Your task to perform on an android device: What's on my calendar today? Image 0: 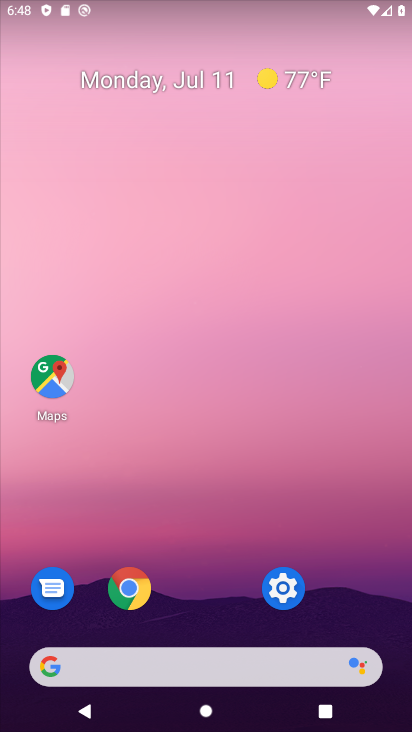
Step 0: drag from (227, 695) to (216, 311)
Your task to perform on an android device: What's on my calendar today? Image 1: 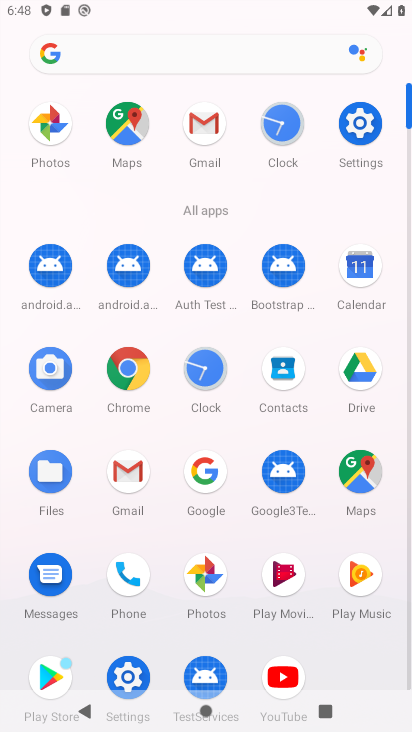
Step 1: click (364, 267)
Your task to perform on an android device: What's on my calendar today? Image 2: 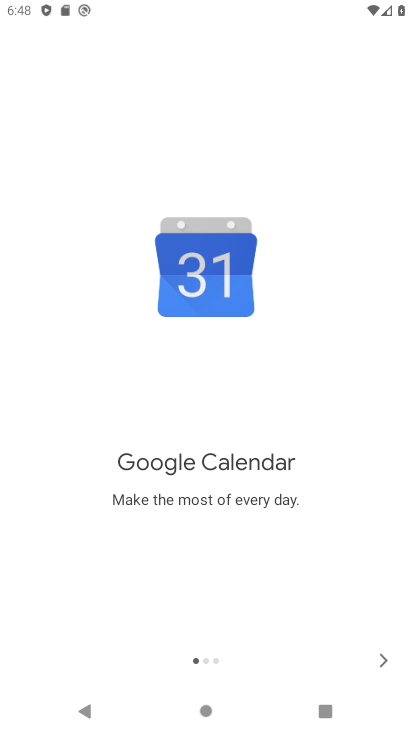
Step 2: click (399, 653)
Your task to perform on an android device: What's on my calendar today? Image 3: 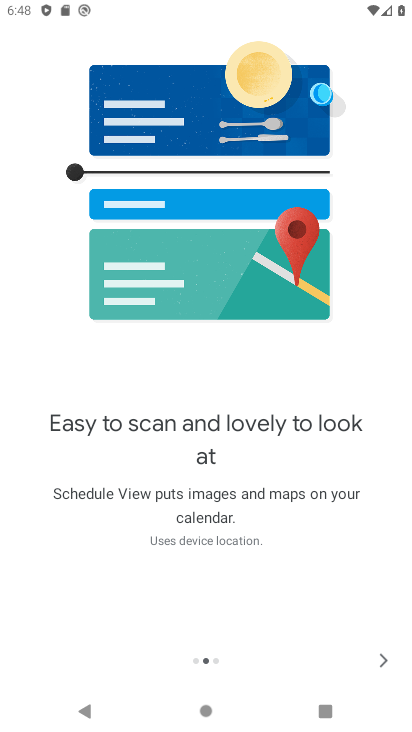
Step 3: click (388, 657)
Your task to perform on an android device: What's on my calendar today? Image 4: 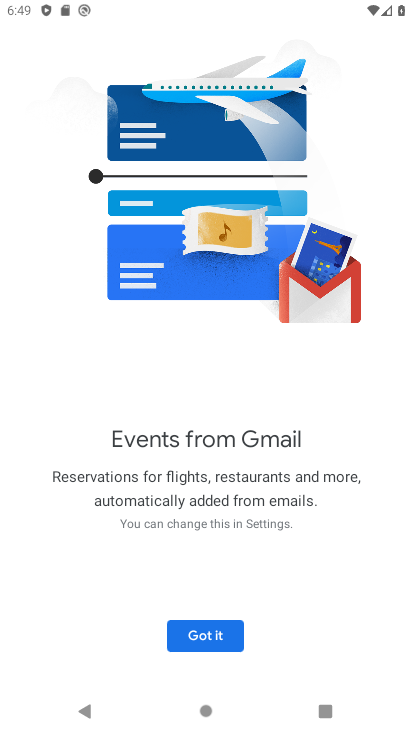
Step 4: click (209, 628)
Your task to perform on an android device: What's on my calendar today? Image 5: 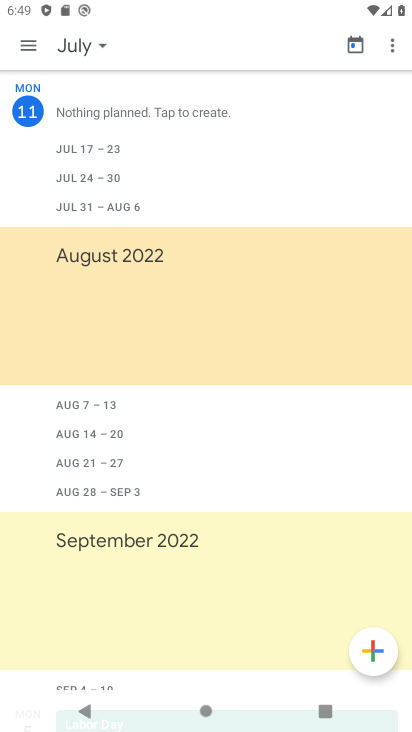
Step 5: click (33, 59)
Your task to perform on an android device: What's on my calendar today? Image 6: 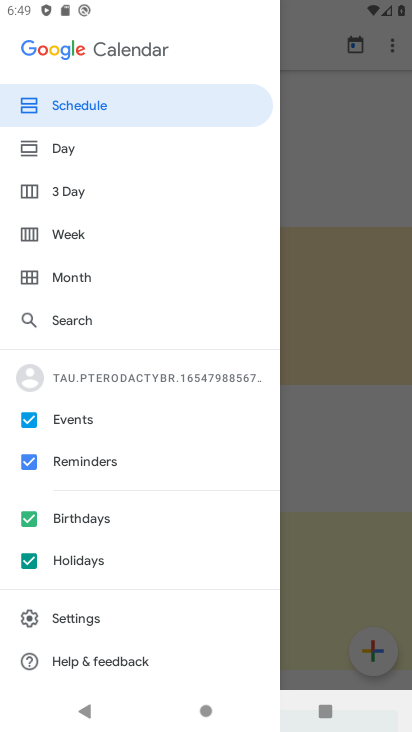
Step 6: click (87, 108)
Your task to perform on an android device: What's on my calendar today? Image 7: 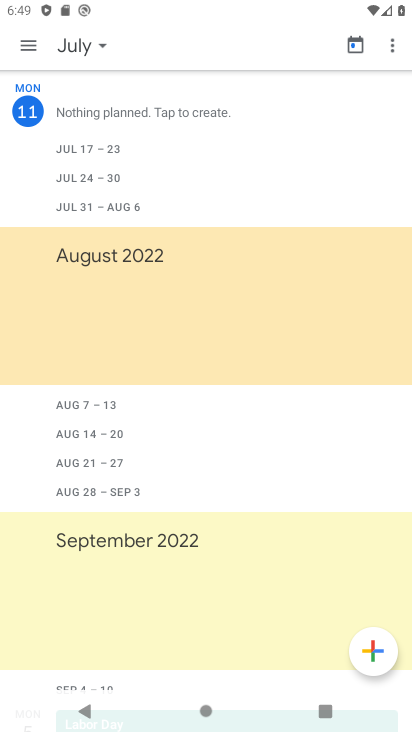
Step 7: task complete